Your task to perform on an android device: check data usage Image 0: 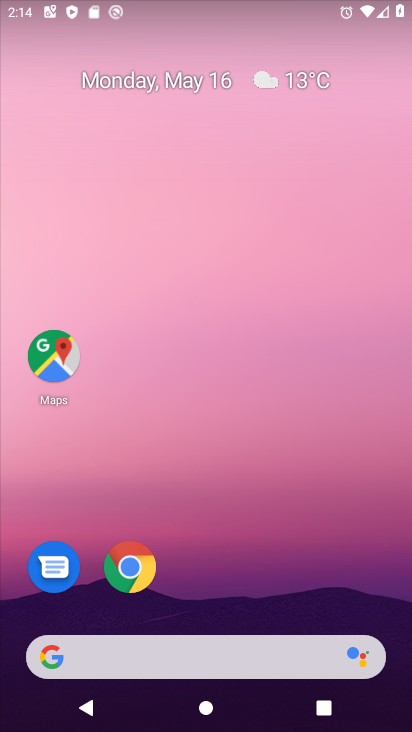
Step 0: press home button
Your task to perform on an android device: check data usage Image 1: 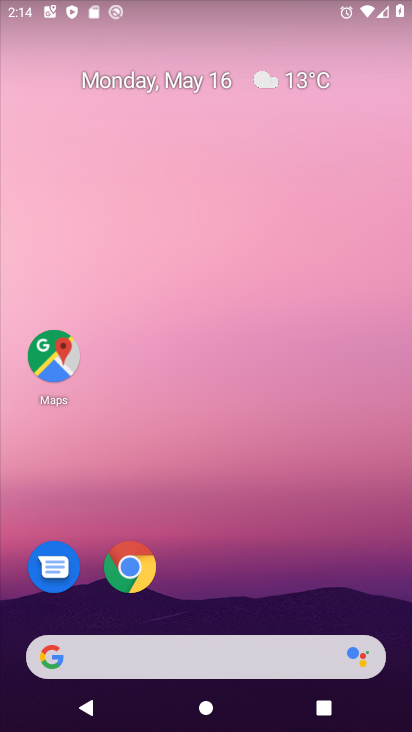
Step 1: drag from (307, 588) to (378, 634)
Your task to perform on an android device: check data usage Image 2: 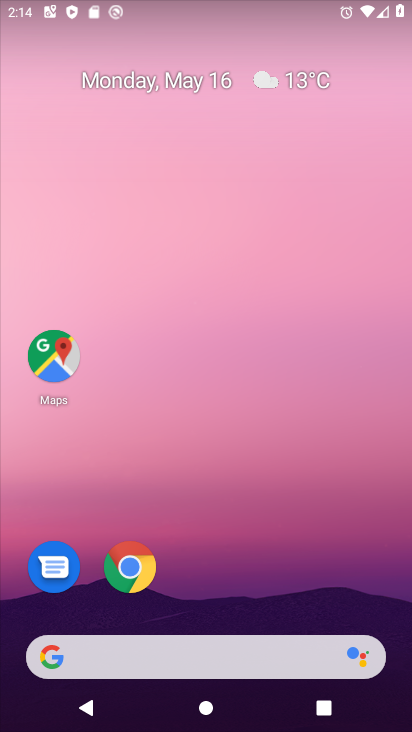
Step 2: drag from (303, 131) to (340, 654)
Your task to perform on an android device: check data usage Image 3: 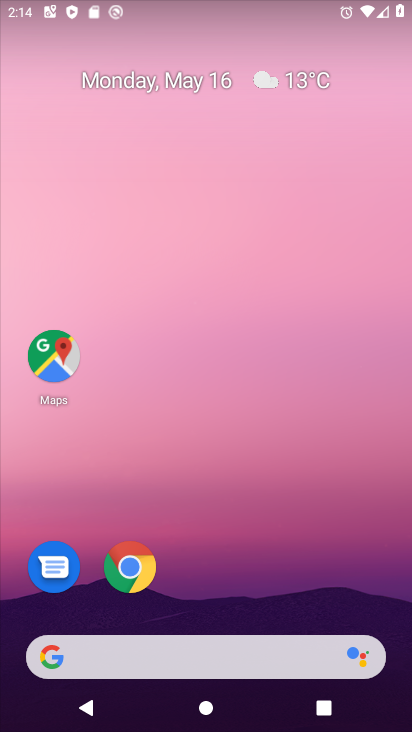
Step 3: drag from (180, 113) to (259, 634)
Your task to perform on an android device: check data usage Image 4: 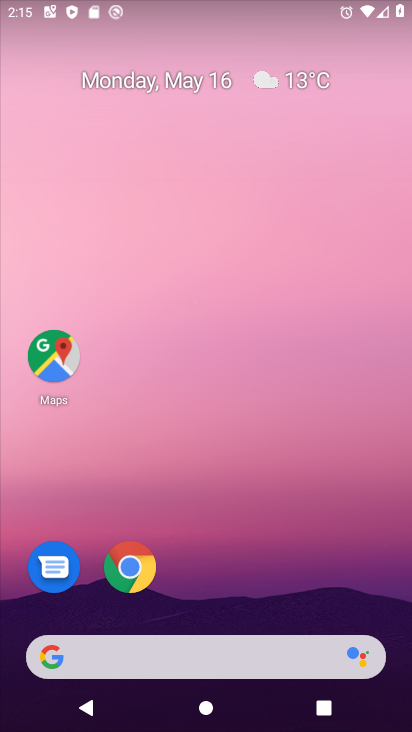
Step 4: drag from (176, 1) to (133, 729)
Your task to perform on an android device: check data usage Image 5: 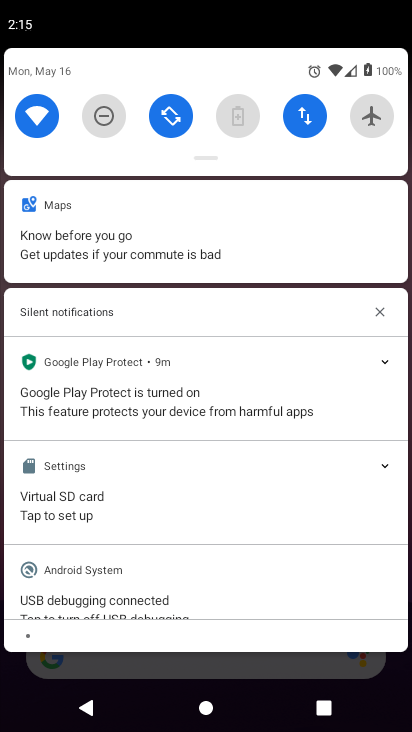
Step 5: click (305, 119)
Your task to perform on an android device: check data usage Image 6: 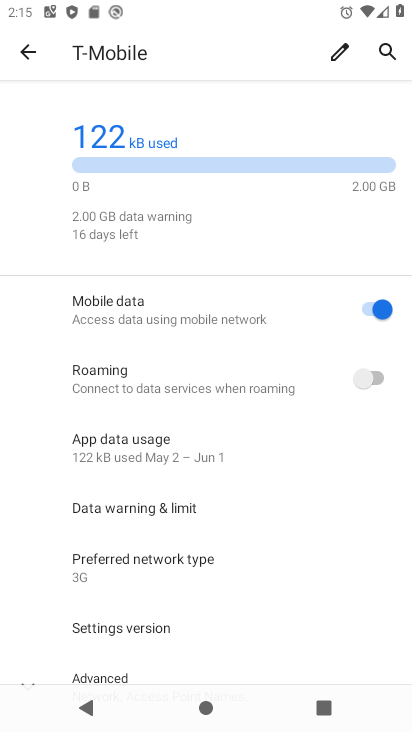
Step 6: task complete